Your task to perform on an android device: Open the Play Movies app and select the watchlist tab. Image 0: 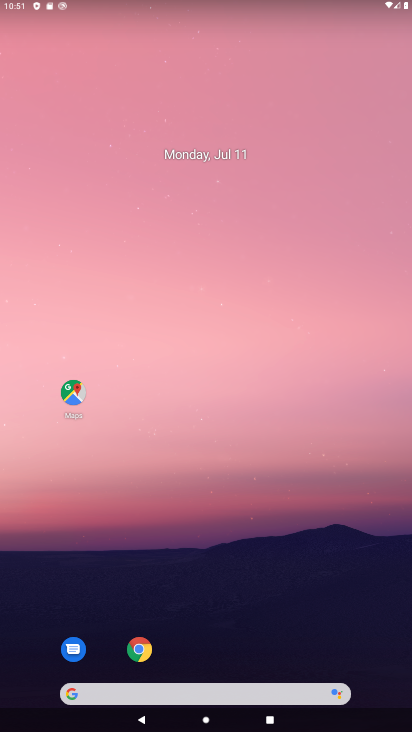
Step 0: drag from (186, 692) to (219, 41)
Your task to perform on an android device: Open the Play Movies app and select the watchlist tab. Image 1: 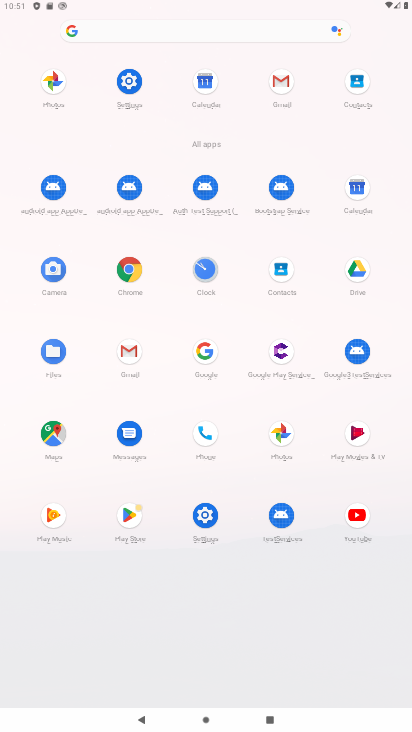
Step 1: click (355, 433)
Your task to perform on an android device: Open the Play Movies app and select the watchlist tab. Image 2: 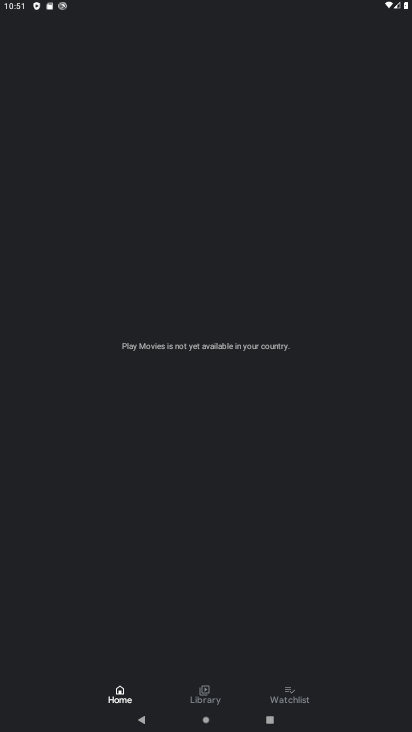
Step 2: click (291, 695)
Your task to perform on an android device: Open the Play Movies app and select the watchlist tab. Image 3: 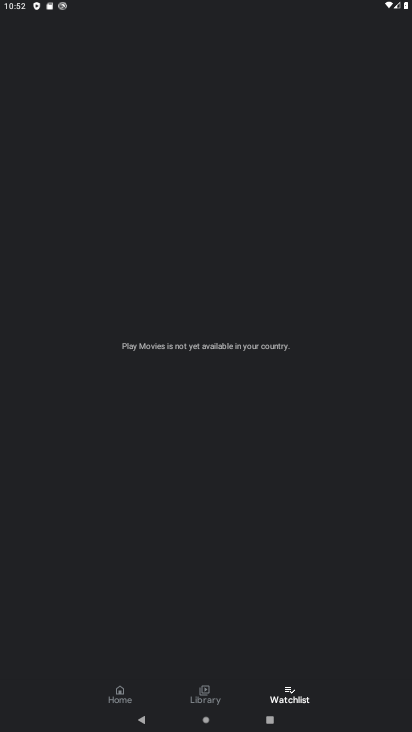
Step 3: task complete